Your task to perform on an android device: Search for Mexican restaurants on Maps Image 0: 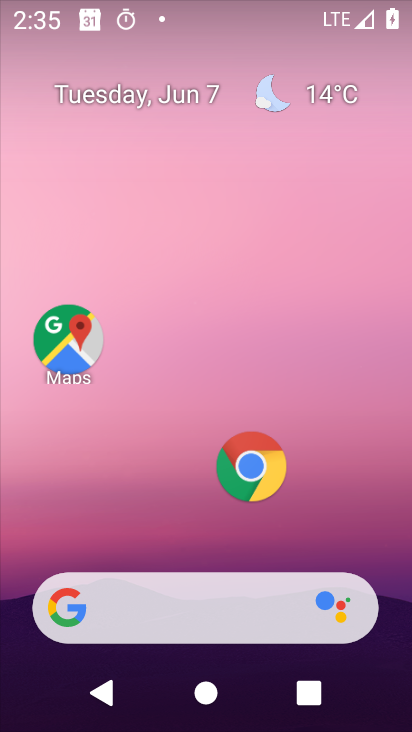
Step 0: click (62, 342)
Your task to perform on an android device: Search for Mexican restaurants on Maps Image 1: 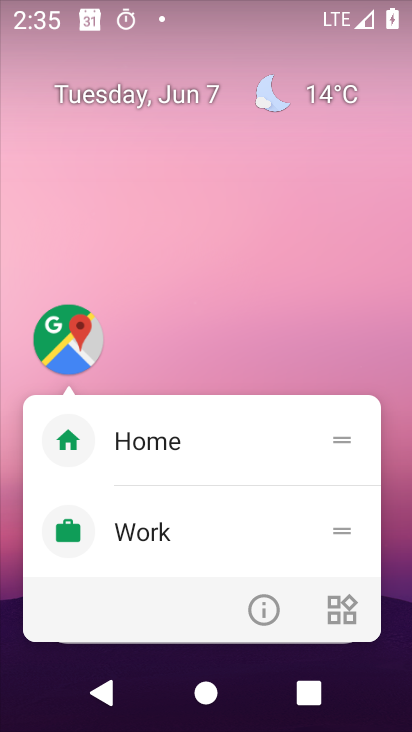
Step 1: click (61, 354)
Your task to perform on an android device: Search for Mexican restaurants on Maps Image 2: 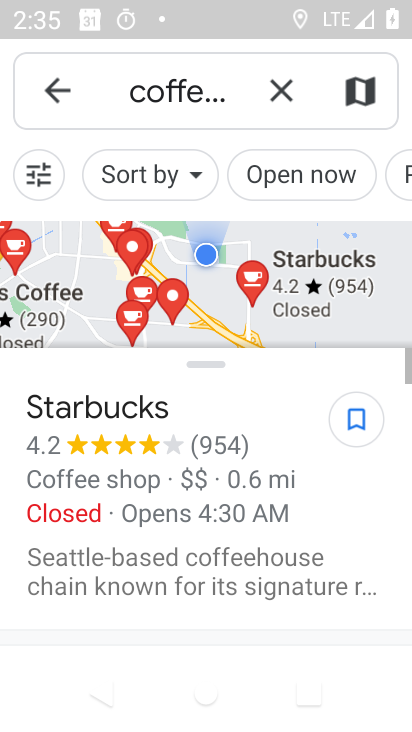
Step 2: click (289, 97)
Your task to perform on an android device: Search for Mexican restaurants on Maps Image 3: 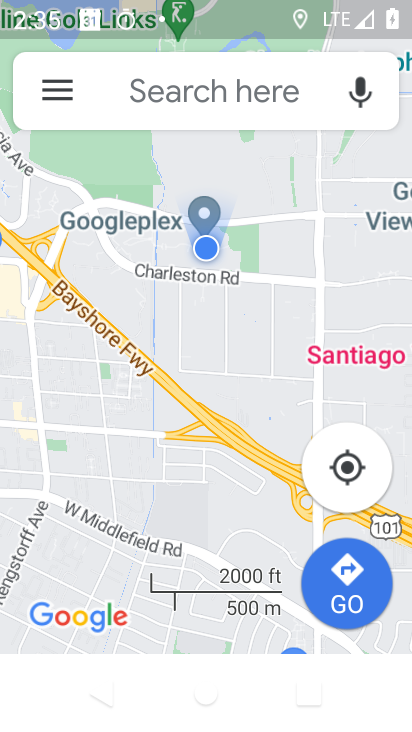
Step 3: click (261, 99)
Your task to perform on an android device: Search for Mexican restaurants on Maps Image 4: 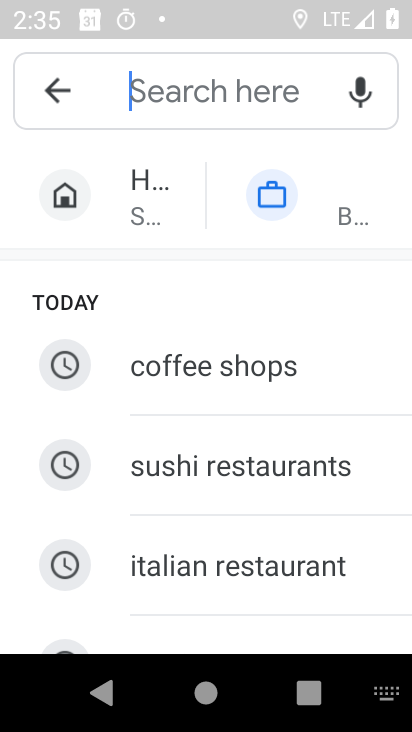
Step 4: drag from (282, 540) to (294, 316)
Your task to perform on an android device: Search for Mexican restaurants on Maps Image 5: 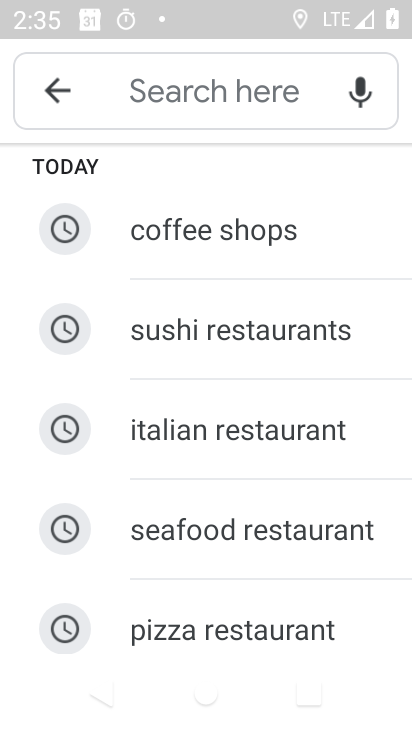
Step 5: click (234, 106)
Your task to perform on an android device: Search for Mexican restaurants on Maps Image 6: 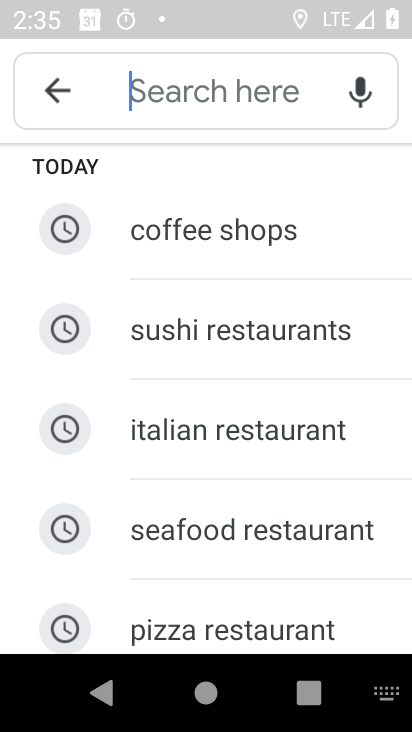
Step 6: type "mexican restaurants"
Your task to perform on an android device: Search for Mexican restaurants on Maps Image 7: 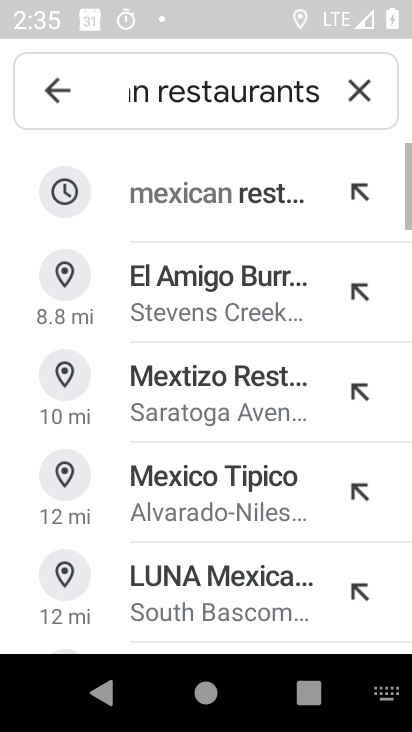
Step 7: click (256, 216)
Your task to perform on an android device: Search for Mexican restaurants on Maps Image 8: 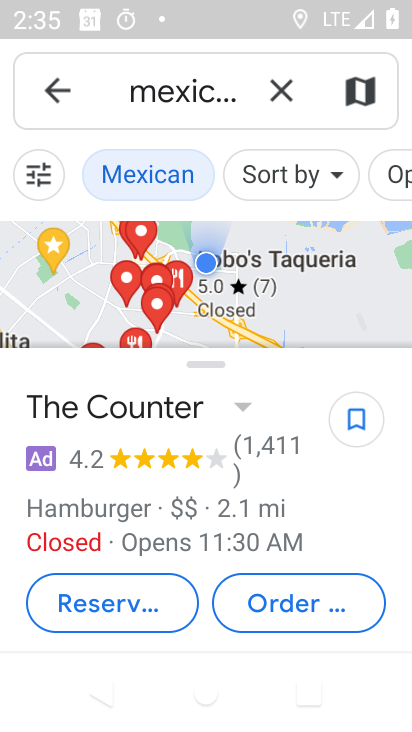
Step 8: task complete